Your task to perform on an android device: Do I have any events today? Image 0: 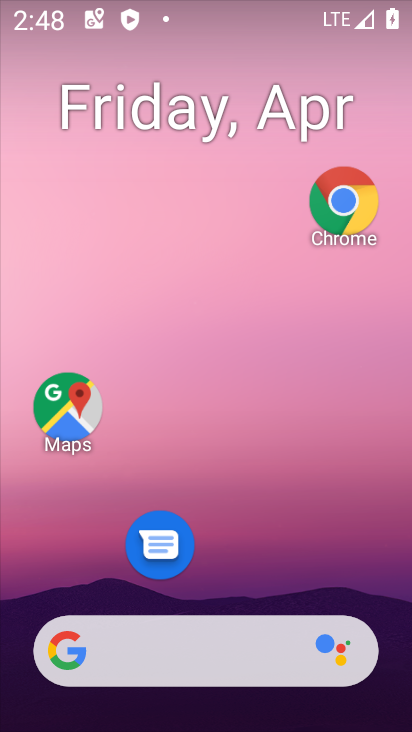
Step 0: drag from (226, 572) to (1, 251)
Your task to perform on an android device: Do I have any events today? Image 1: 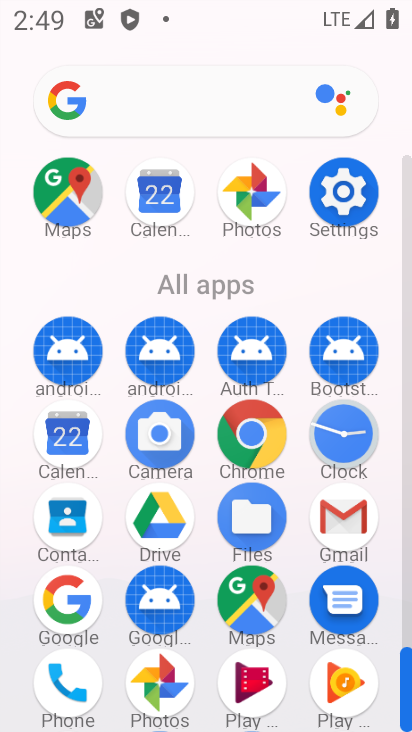
Step 1: click (69, 435)
Your task to perform on an android device: Do I have any events today? Image 2: 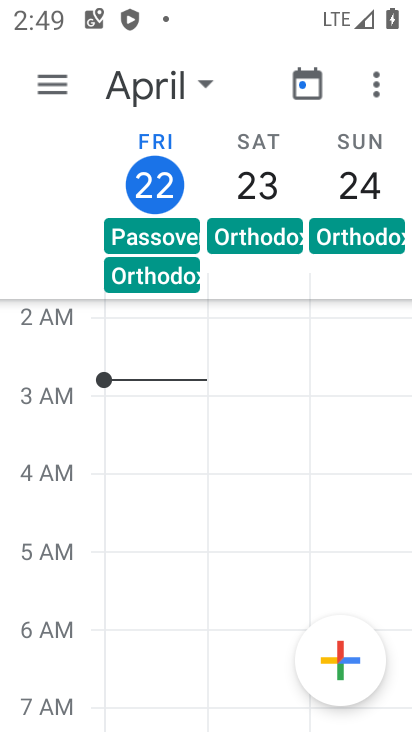
Step 2: click (65, 77)
Your task to perform on an android device: Do I have any events today? Image 3: 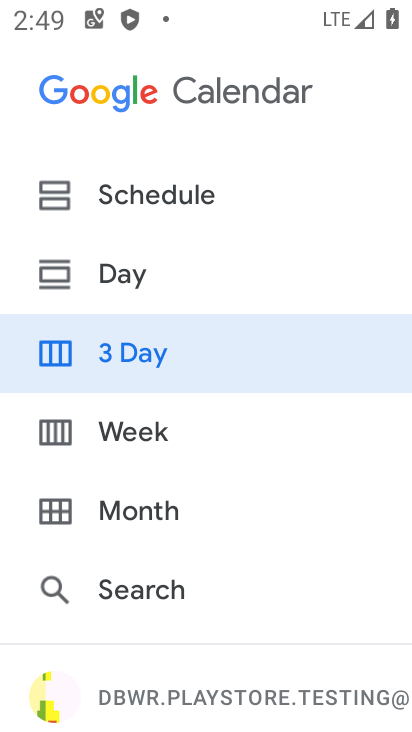
Step 3: drag from (136, 607) to (256, 128)
Your task to perform on an android device: Do I have any events today? Image 4: 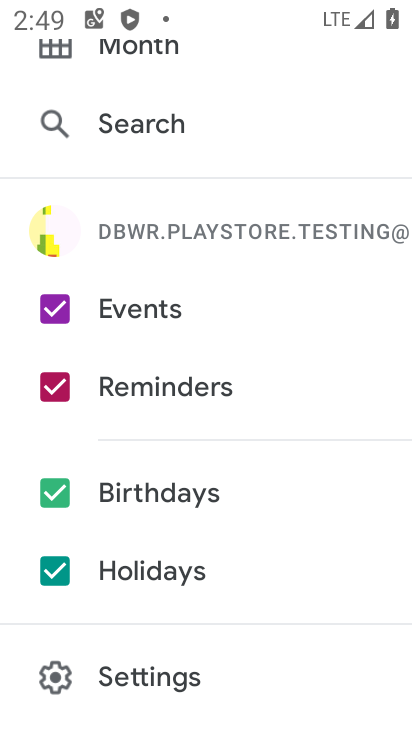
Step 4: click (48, 374)
Your task to perform on an android device: Do I have any events today? Image 5: 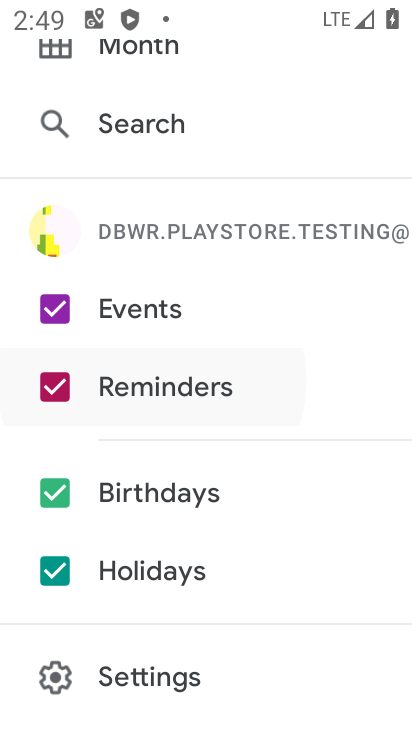
Step 5: click (68, 501)
Your task to perform on an android device: Do I have any events today? Image 6: 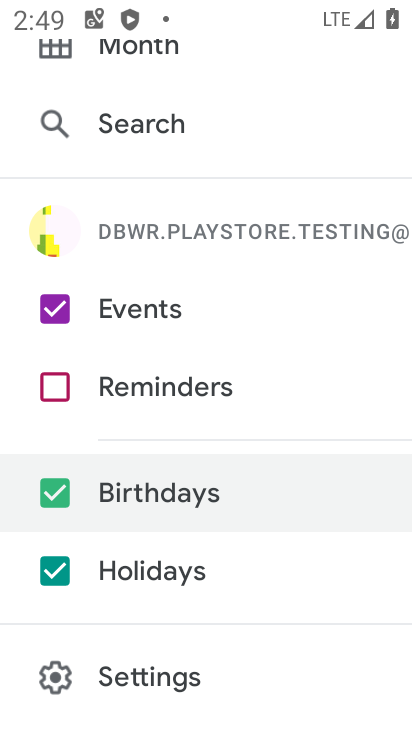
Step 6: click (57, 582)
Your task to perform on an android device: Do I have any events today? Image 7: 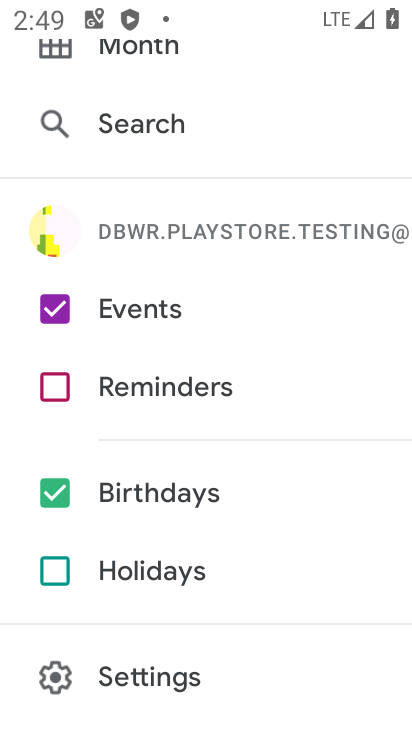
Step 7: click (52, 495)
Your task to perform on an android device: Do I have any events today? Image 8: 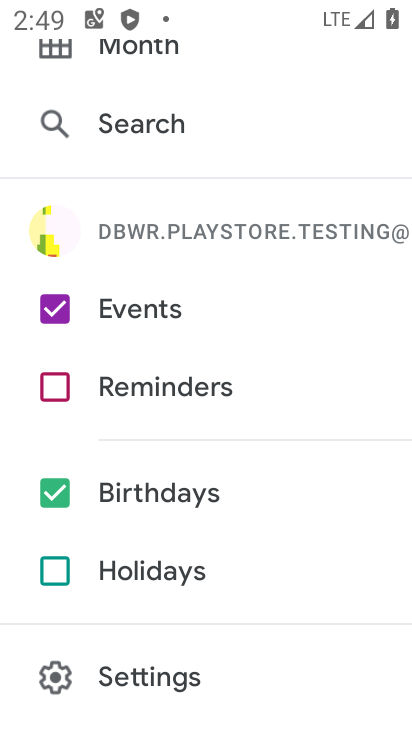
Step 8: drag from (227, 182) to (210, 292)
Your task to perform on an android device: Do I have any events today? Image 9: 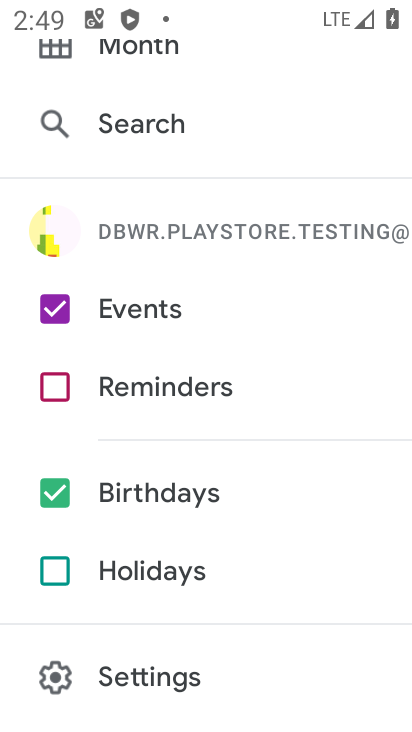
Step 9: click (60, 484)
Your task to perform on an android device: Do I have any events today? Image 10: 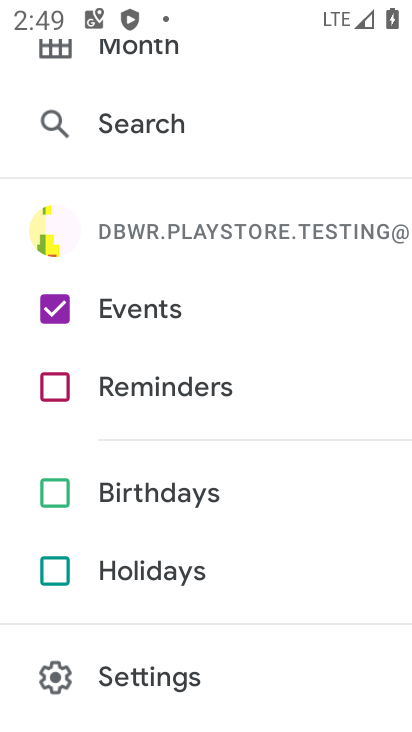
Step 10: drag from (220, 265) to (159, 679)
Your task to perform on an android device: Do I have any events today? Image 11: 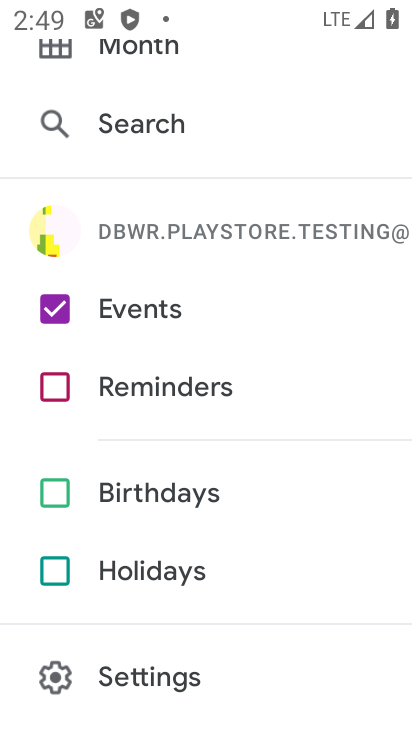
Step 11: drag from (161, 174) to (183, 684)
Your task to perform on an android device: Do I have any events today? Image 12: 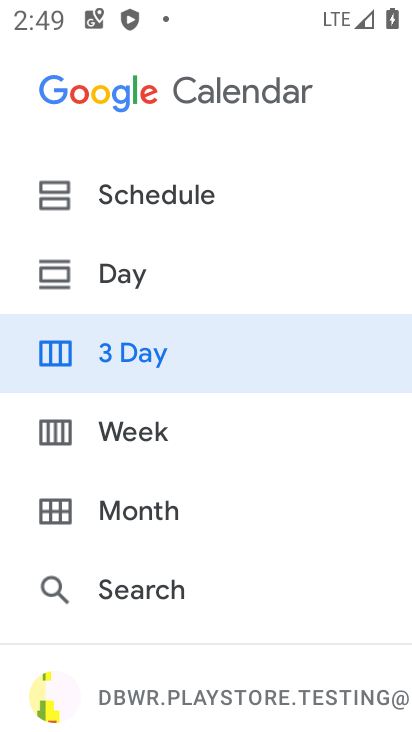
Step 12: click (241, 180)
Your task to perform on an android device: Do I have any events today? Image 13: 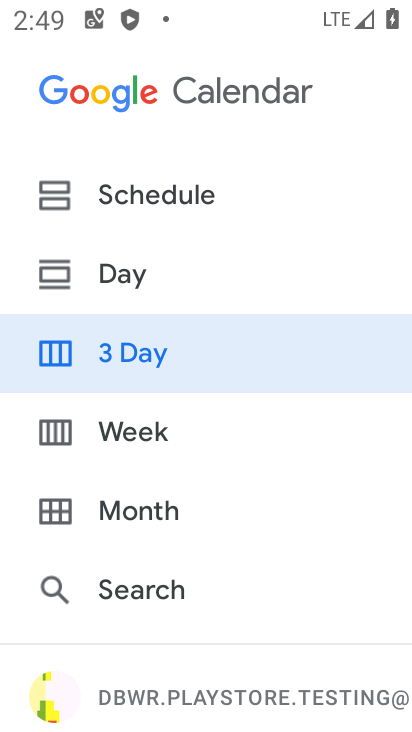
Step 13: drag from (206, 376) to (211, 632)
Your task to perform on an android device: Do I have any events today? Image 14: 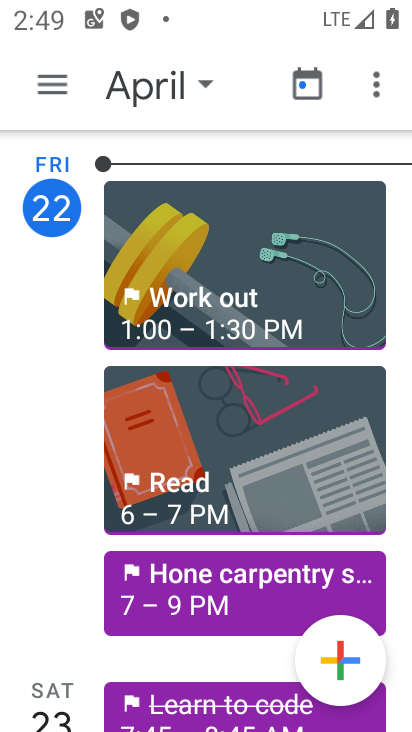
Step 14: click (69, 94)
Your task to perform on an android device: Do I have any events today? Image 15: 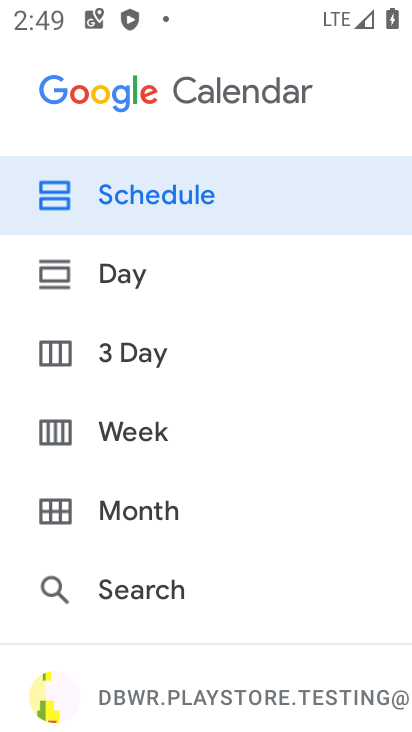
Step 15: click (116, 269)
Your task to perform on an android device: Do I have any events today? Image 16: 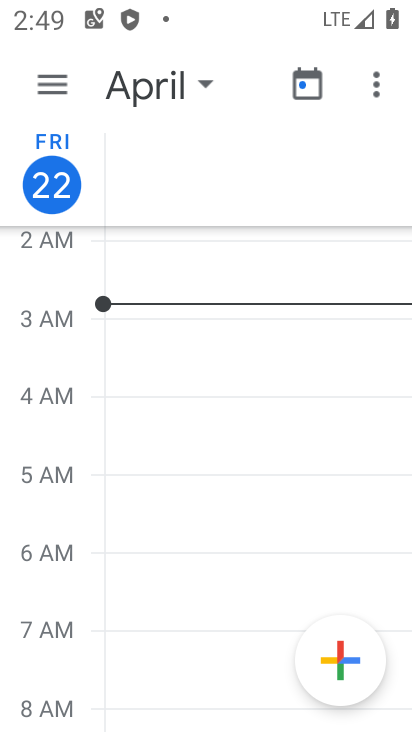
Step 16: task complete